Your task to perform on an android device: Go to network settings Image 0: 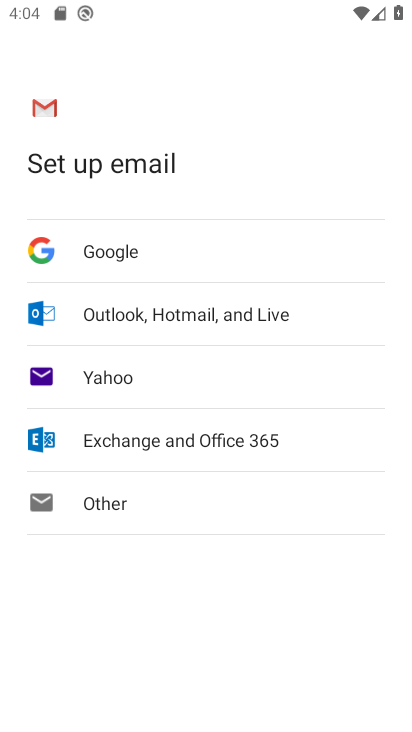
Step 0: press home button
Your task to perform on an android device: Go to network settings Image 1: 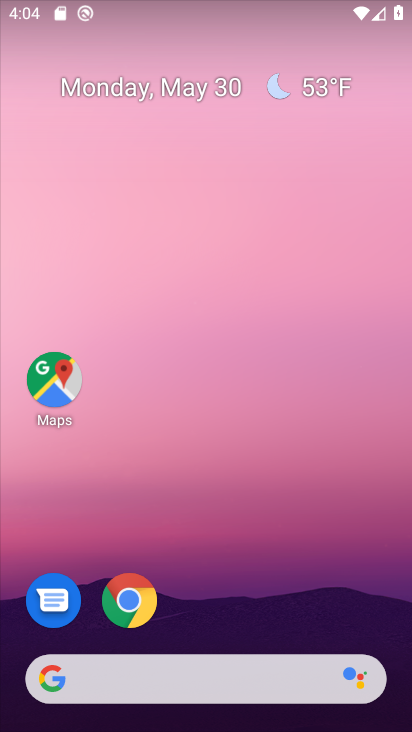
Step 1: drag from (281, 528) to (270, 5)
Your task to perform on an android device: Go to network settings Image 2: 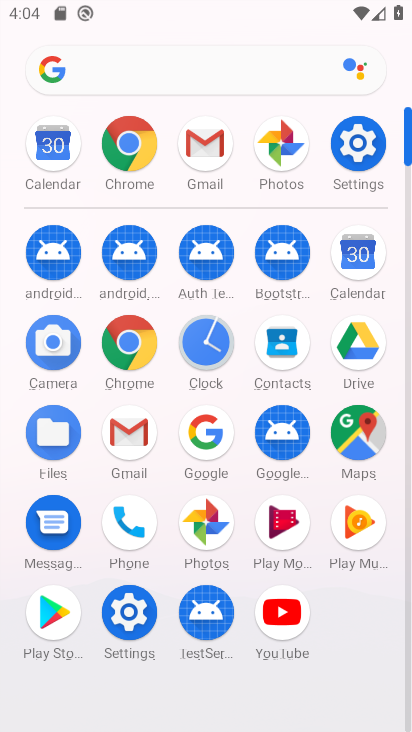
Step 2: click (354, 153)
Your task to perform on an android device: Go to network settings Image 3: 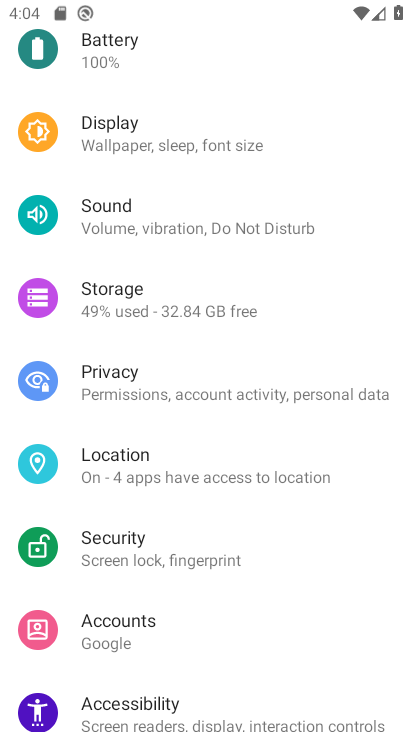
Step 3: drag from (187, 159) to (263, 634)
Your task to perform on an android device: Go to network settings Image 4: 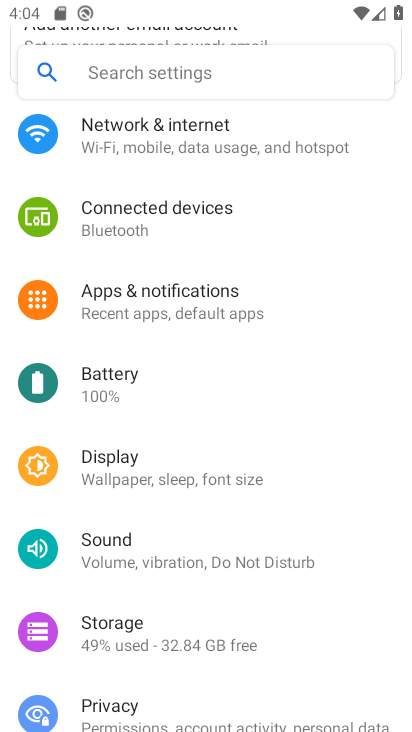
Step 4: drag from (173, 127) to (257, 551)
Your task to perform on an android device: Go to network settings Image 5: 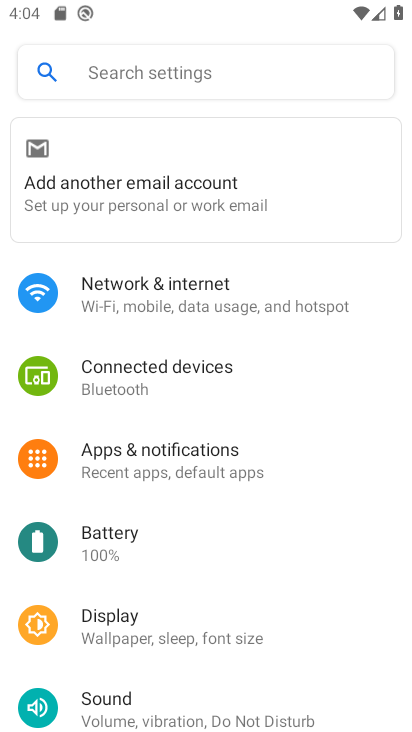
Step 5: click (164, 290)
Your task to perform on an android device: Go to network settings Image 6: 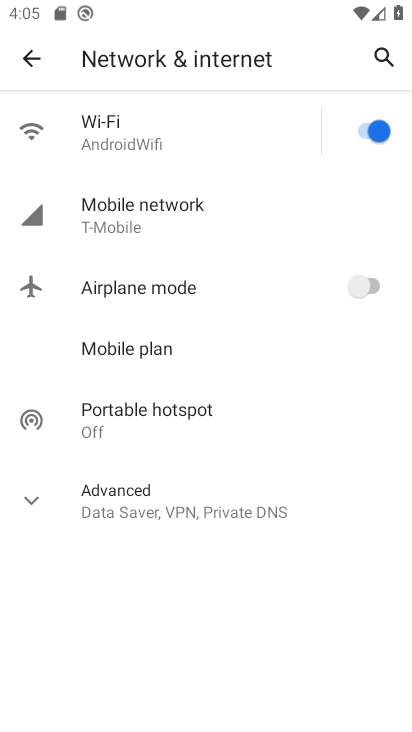
Step 6: task complete